Your task to perform on an android device: Open location settings Image 0: 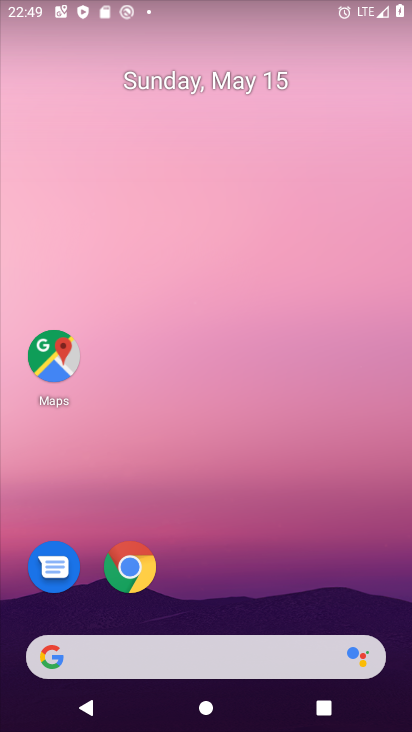
Step 0: drag from (222, 708) to (174, 232)
Your task to perform on an android device: Open location settings Image 1: 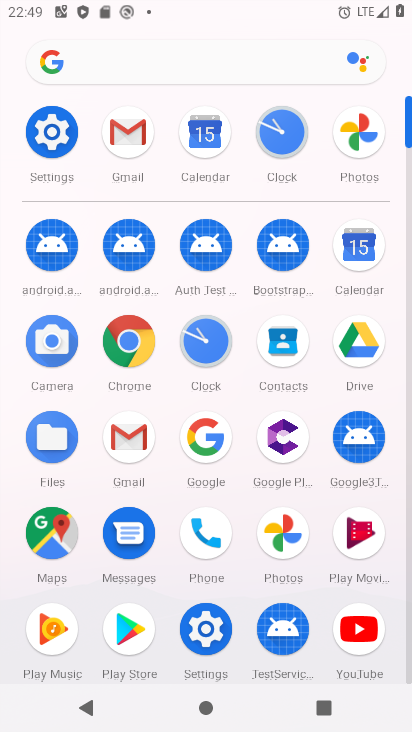
Step 1: click (55, 127)
Your task to perform on an android device: Open location settings Image 2: 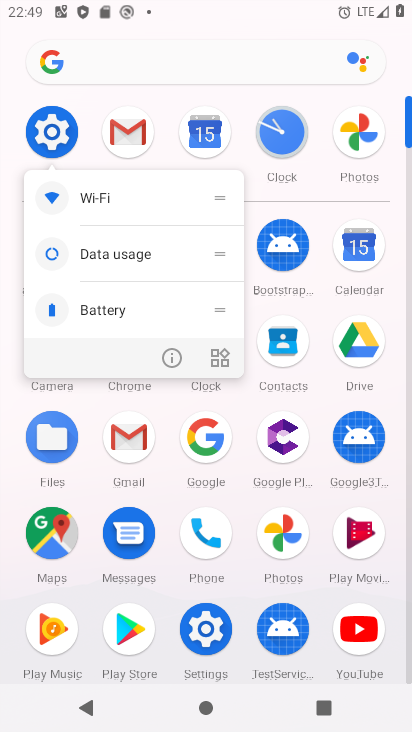
Step 2: click (55, 127)
Your task to perform on an android device: Open location settings Image 3: 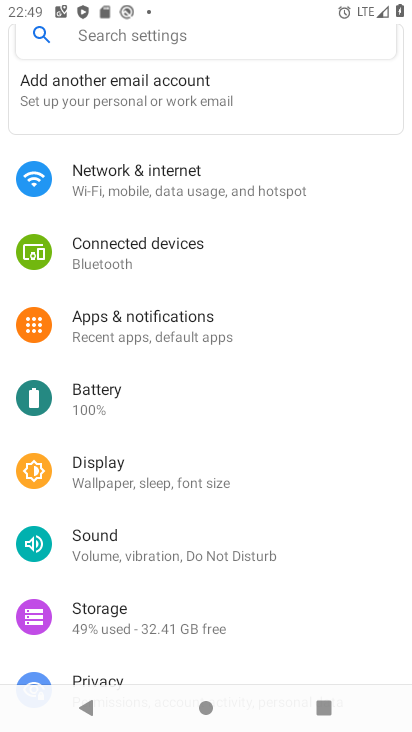
Step 3: drag from (200, 600) to (254, 153)
Your task to perform on an android device: Open location settings Image 4: 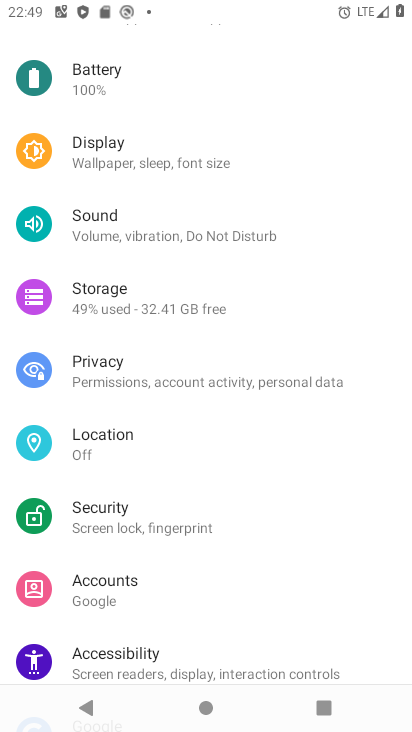
Step 4: click (150, 443)
Your task to perform on an android device: Open location settings Image 5: 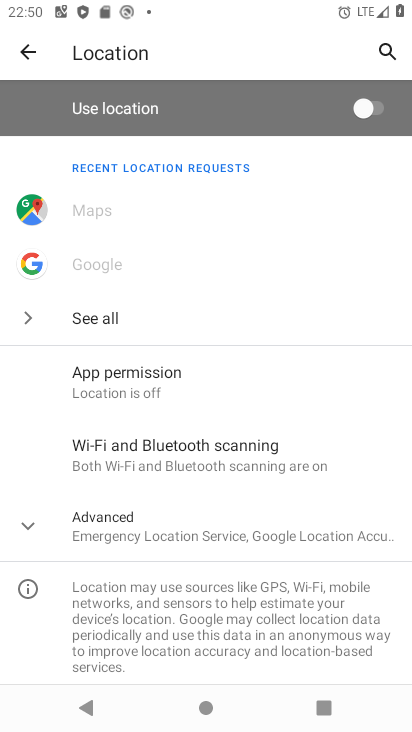
Step 5: task complete